Your task to perform on an android device: turn on data saver in the chrome app Image 0: 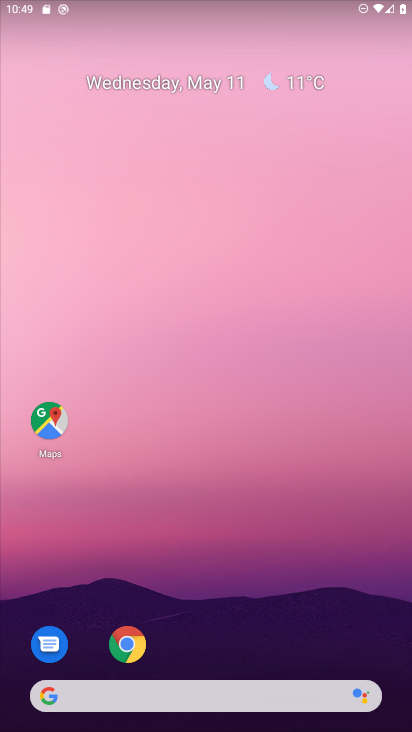
Step 0: click (136, 649)
Your task to perform on an android device: turn on data saver in the chrome app Image 1: 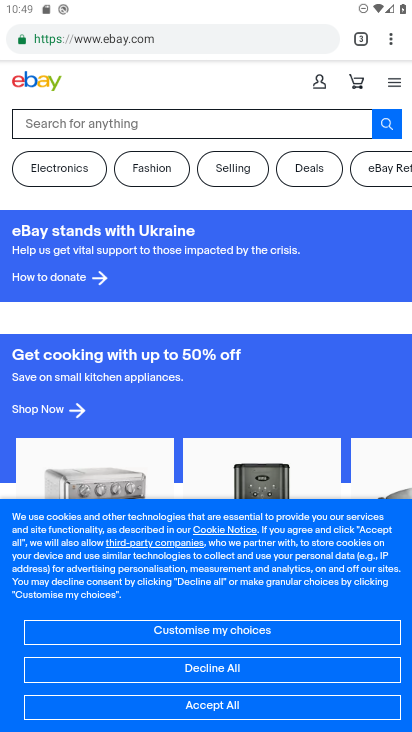
Step 1: click (391, 45)
Your task to perform on an android device: turn on data saver in the chrome app Image 2: 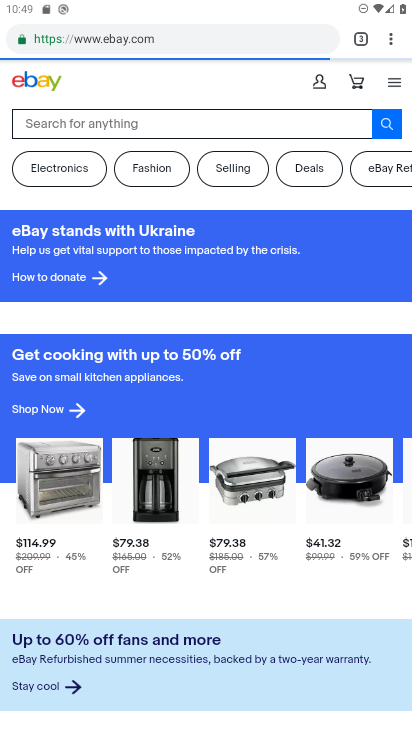
Step 2: drag from (392, 38) to (260, 473)
Your task to perform on an android device: turn on data saver in the chrome app Image 3: 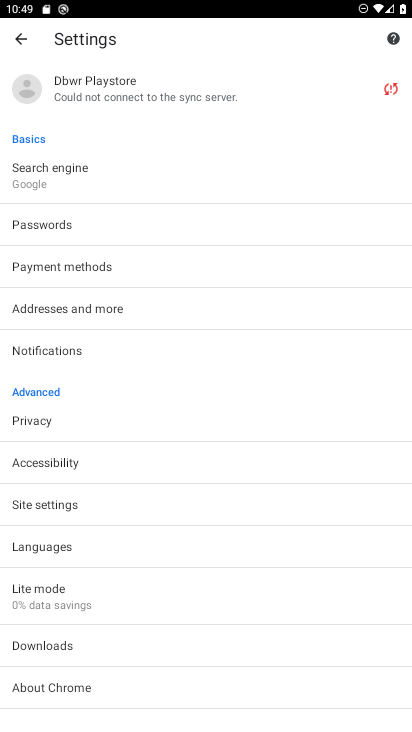
Step 3: click (72, 610)
Your task to perform on an android device: turn on data saver in the chrome app Image 4: 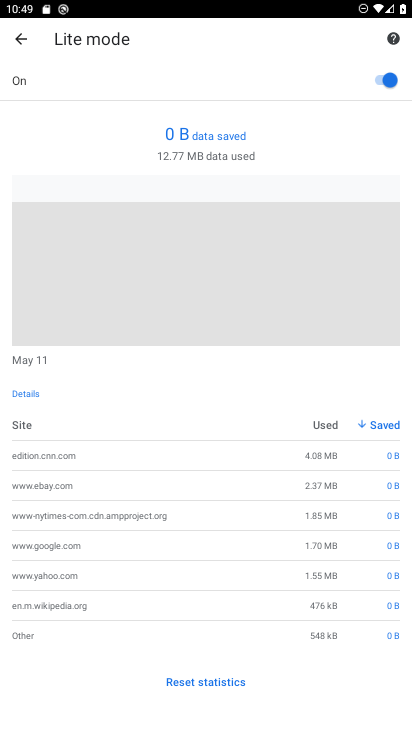
Step 4: task complete